Your task to perform on an android device: Open battery settings Image 0: 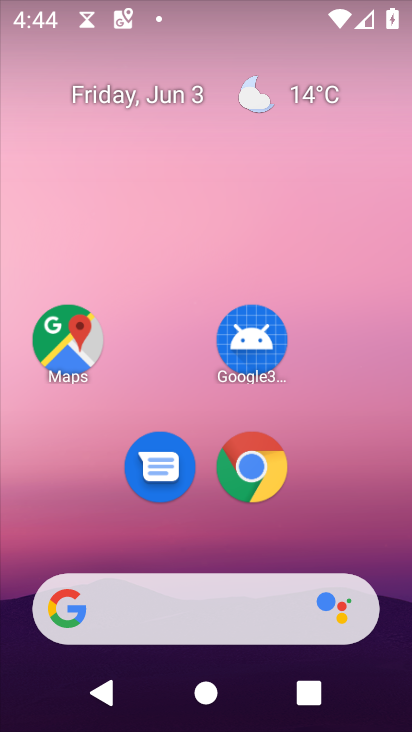
Step 0: drag from (337, 464) to (411, 114)
Your task to perform on an android device: Open battery settings Image 1: 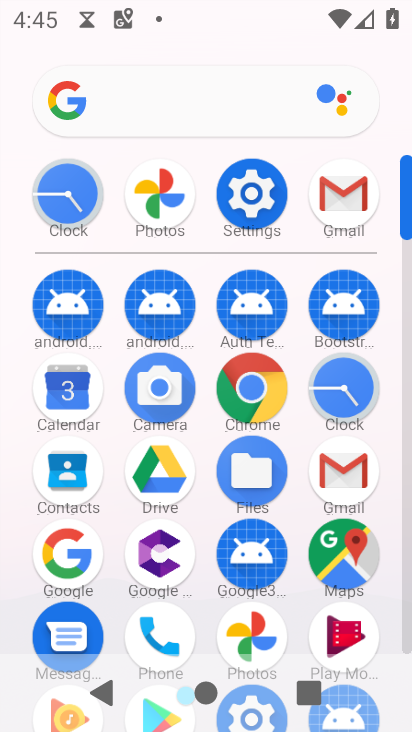
Step 1: click (250, 196)
Your task to perform on an android device: Open battery settings Image 2: 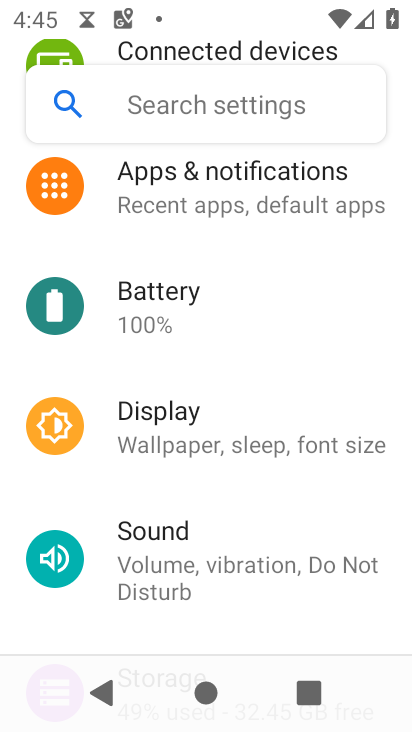
Step 2: click (236, 306)
Your task to perform on an android device: Open battery settings Image 3: 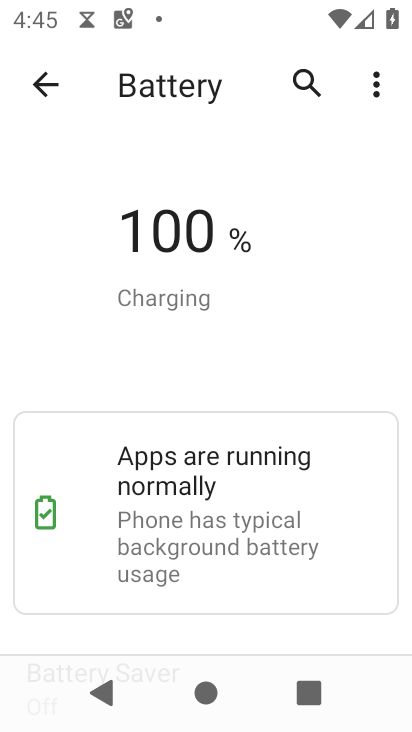
Step 3: task complete